Your task to perform on an android device: Go to wifi settings Image 0: 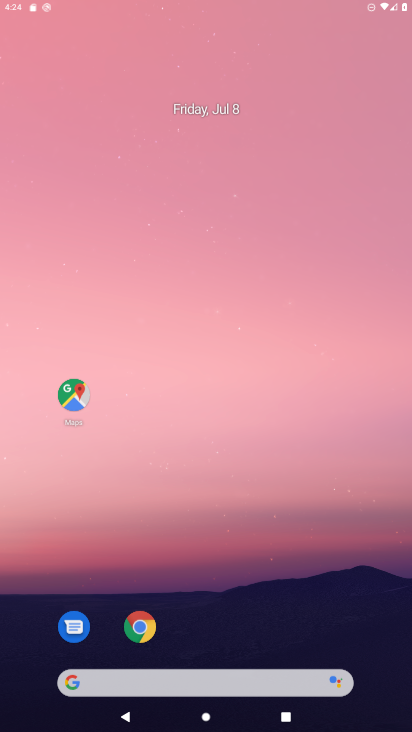
Step 0: click (148, 641)
Your task to perform on an android device: Go to wifi settings Image 1: 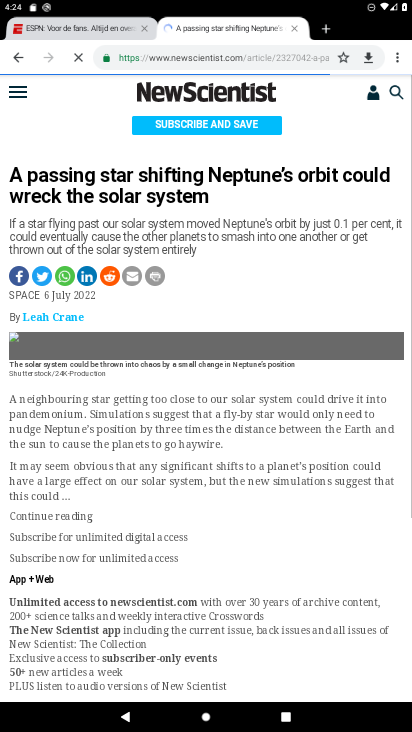
Step 1: press home button
Your task to perform on an android device: Go to wifi settings Image 2: 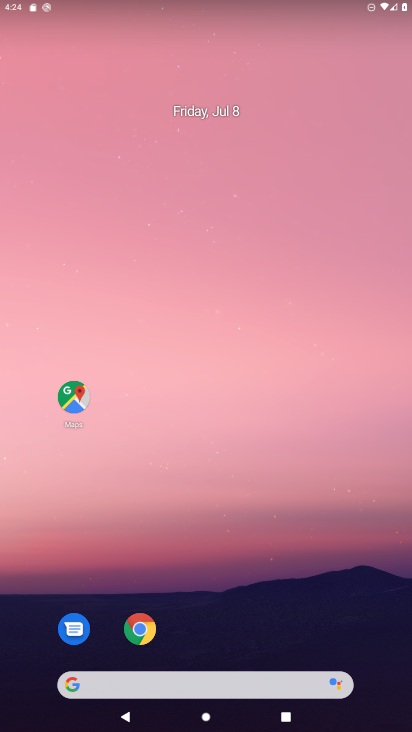
Step 2: drag from (260, 626) to (235, 129)
Your task to perform on an android device: Go to wifi settings Image 3: 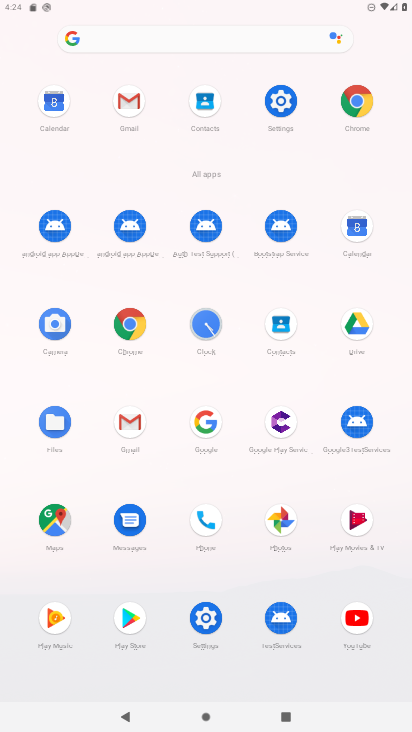
Step 3: click (270, 115)
Your task to perform on an android device: Go to wifi settings Image 4: 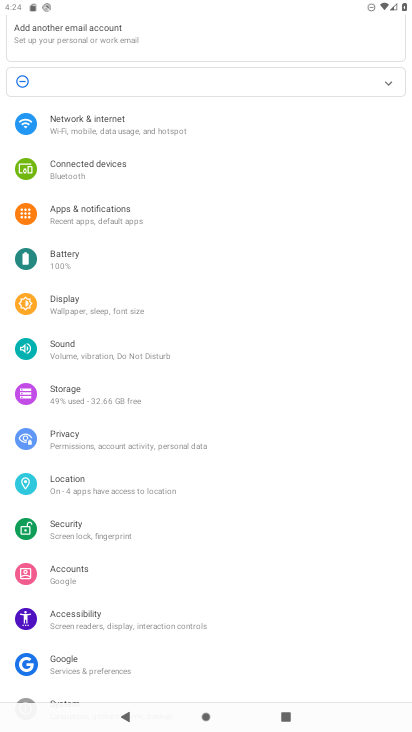
Step 4: click (225, 134)
Your task to perform on an android device: Go to wifi settings Image 5: 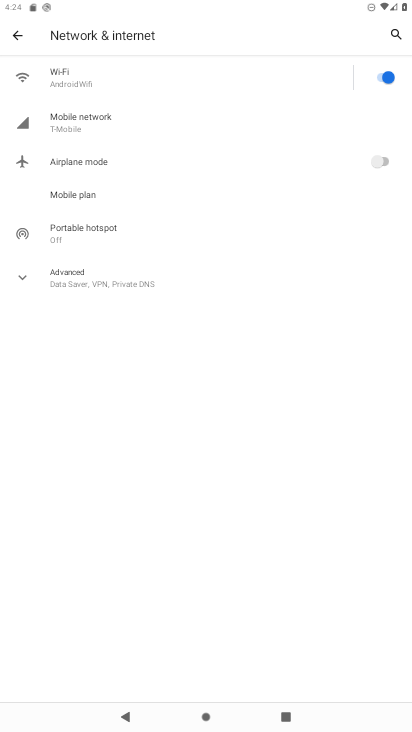
Step 5: task complete